Your task to perform on an android device: Is it going to rain this weekend? Image 0: 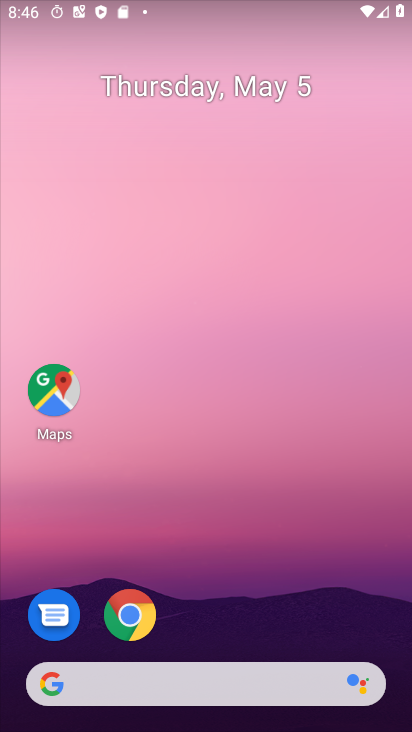
Step 0: click (205, 677)
Your task to perform on an android device: Is it going to rain this weekend? Image 1: 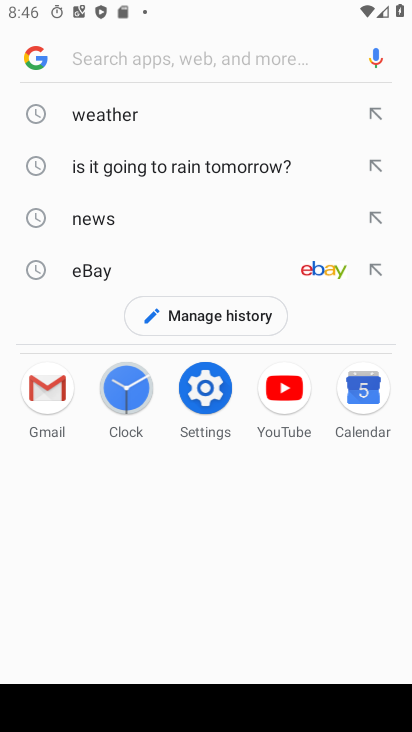
Step 1: click (134, 123)
Your task to perform on an android device: Is it going to rain this weekend? Image 2: 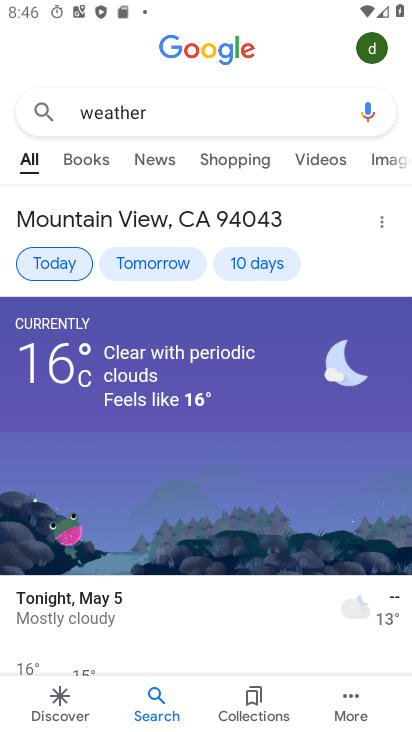
Step 2: drag from (180, 444) to (195, 323)
Your task to perform on an android device: Is it going to rain this weekend? Image 3: 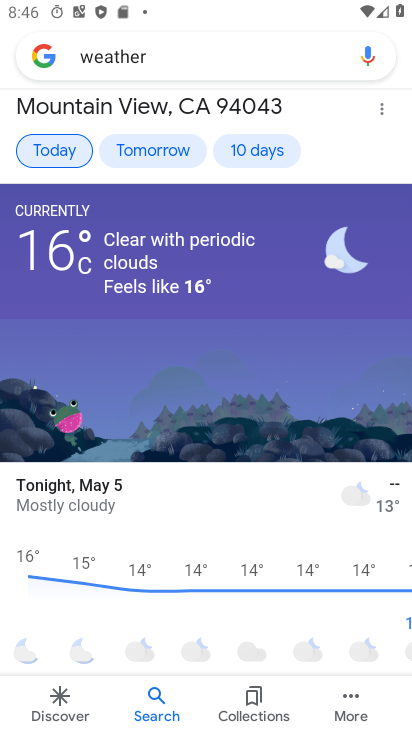
Step 3: click (236, 149)
Your task to perform on an android device: Is it going to rain this weekend? Image 4: 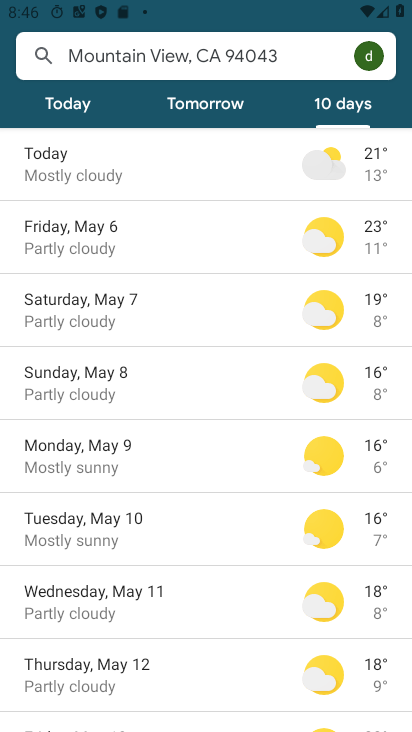
Step 4: task complete